Your task to perform on an android device: Go to Amazon Image 0: 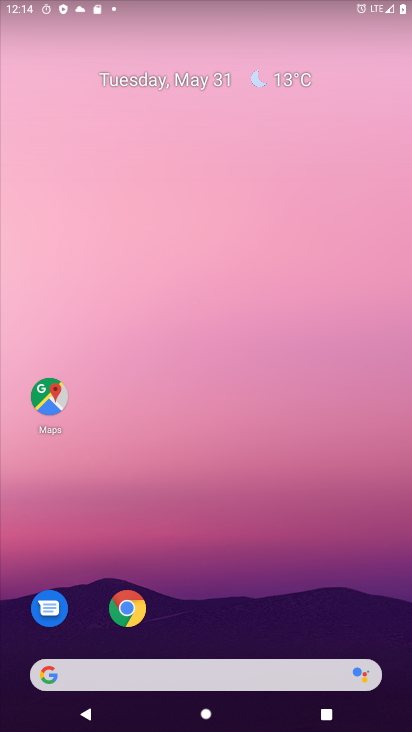
Step 0: click (127, 610)
Your task to perform on an android device: Go to Amazon Image 1: 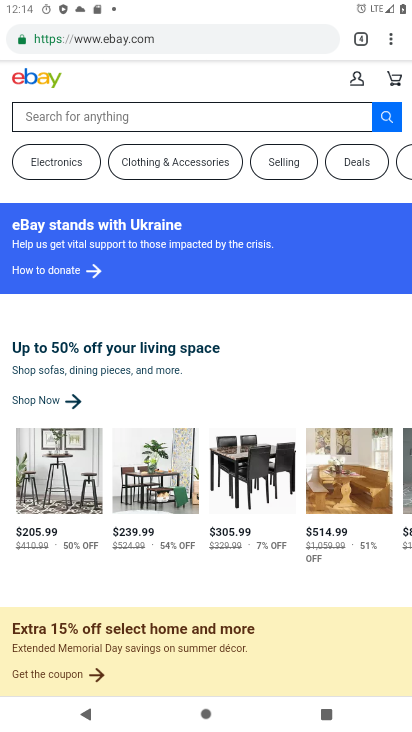
Step 1: click (156, 44)
Your task to perform on an android device: Go to Amazon Image 2: 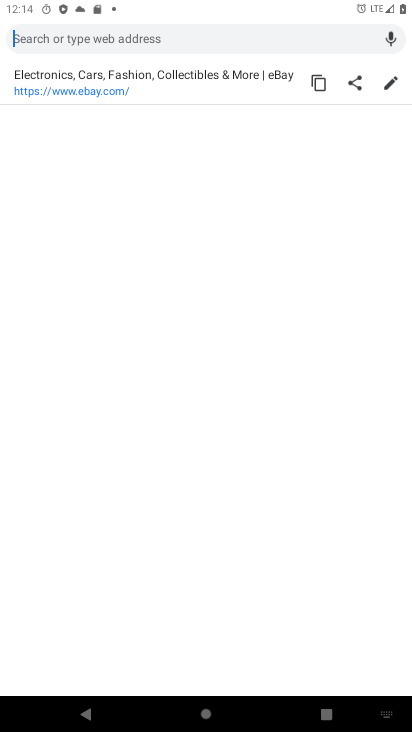
Step 2: type "amazon"
Your task to perform on an android device: Go to Amazon Image 3: 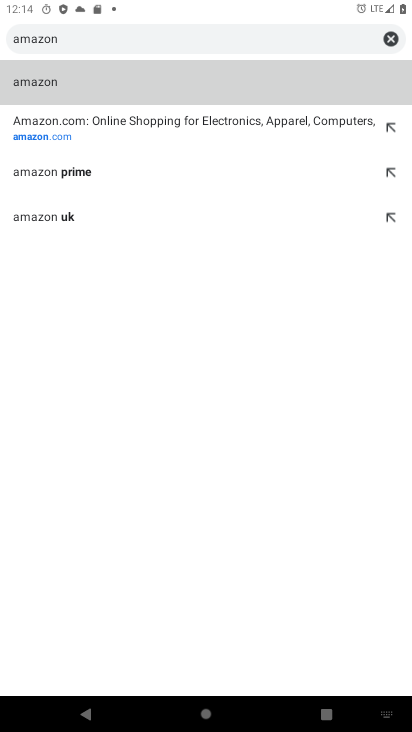
Step 3: click (51, 135)
Your task to perform on an android device: Go to Amazon Image 4: 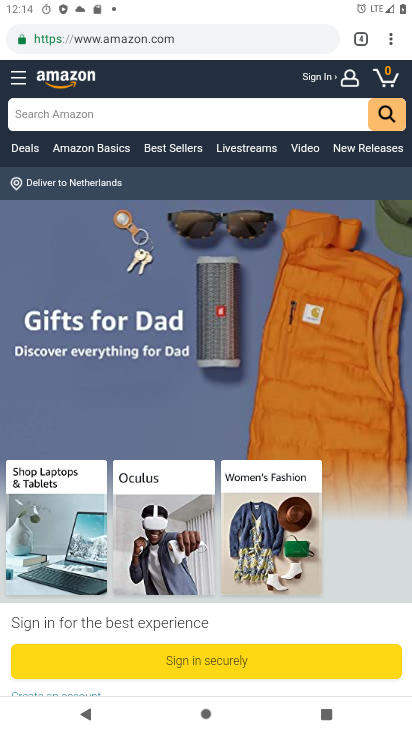
Step 4: task complete